Your task to perform on an android device: move a message to another label in the gmail app Image 0: 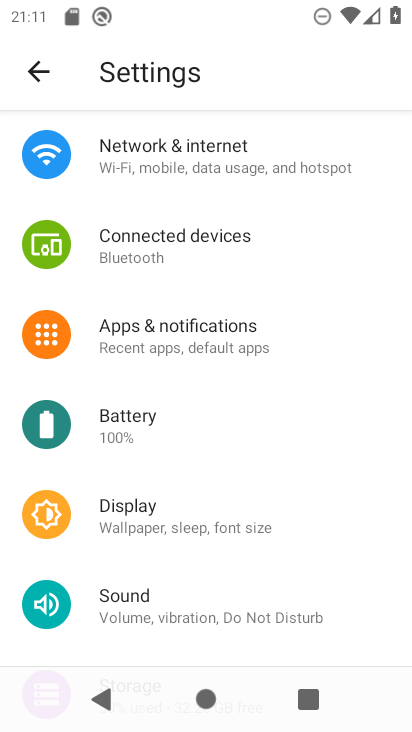
Step 0: press home button
Your task to perform on an android device: move a message to another label in the gmail app Image 1: 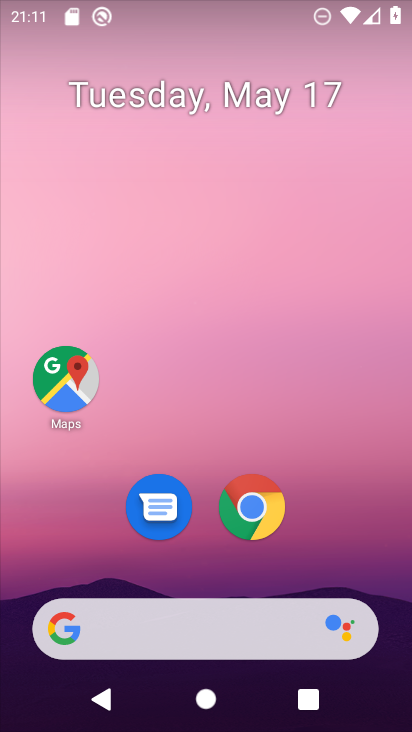
Step 1: drag from (376, 548) to (356, 18)
Your task to perform on an android device: move a message to another label in the gmail app Image 2: 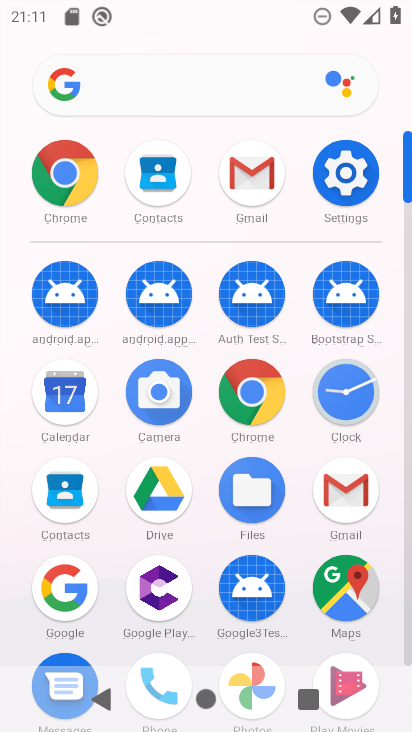
Step 2: click (248, 200)
Your task to perform on an android device: move a message to another label in the gmail app Image 3: 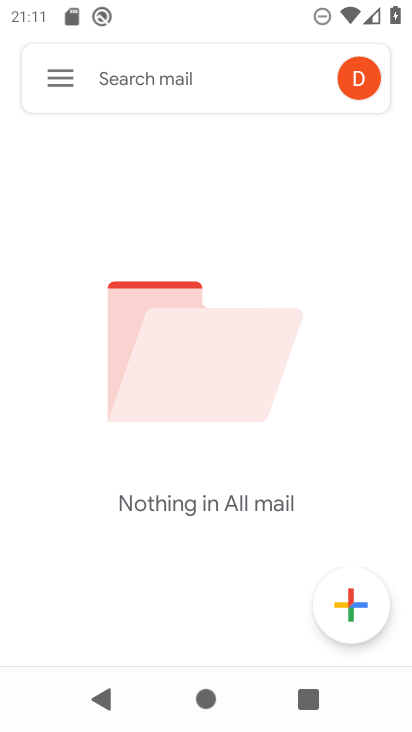
Step 3: task complete